Your task to perform on an android device: Clear the cart on target.com. Search for panasonic triple a on target.com, select the first entry, add it to the cart, then select checkout. Image 0: 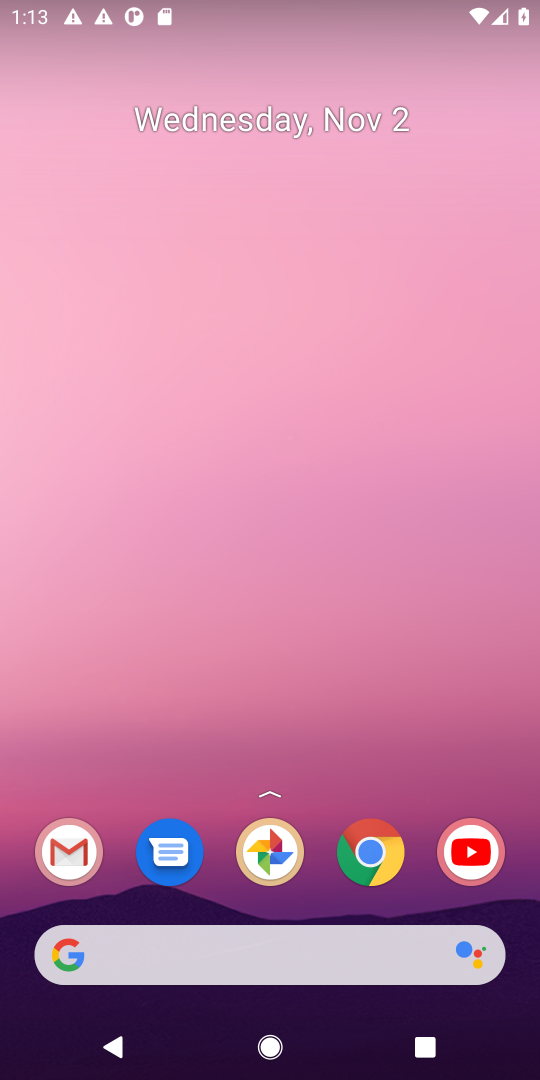
Step 0: press home button
Your task to perform on an android device: Clear the cart on target.com. Search for panasonic triple a on target.com, select the first entry, add it to the cart, then select checkout. Image 1: 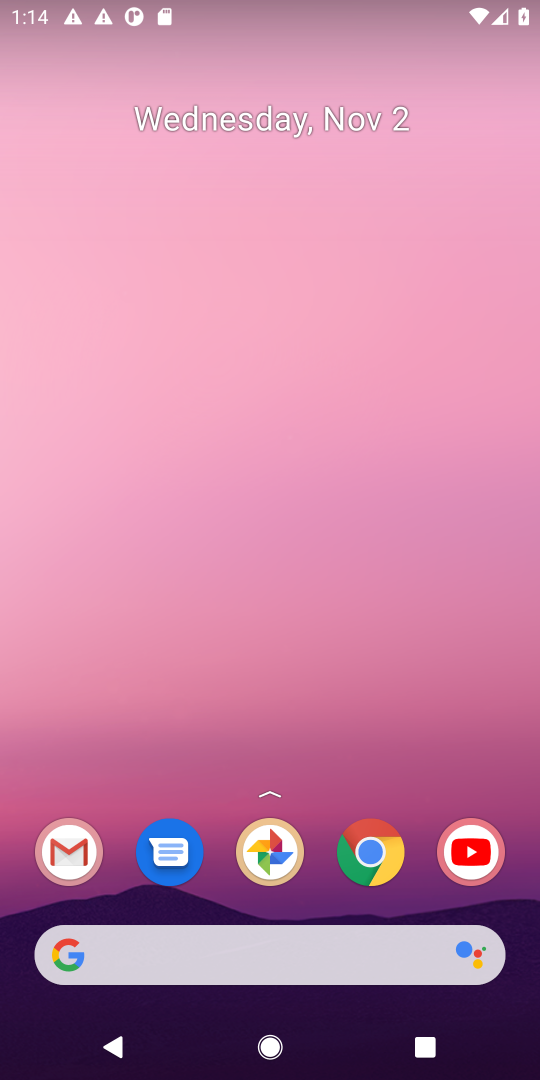
Step 1: click (65, 957)
Your task to perform on an android device: Clear the cart on target.com. Search for panasonic triple a on target.com, select the first entry, add it to the cart, then select checkout. Image 2: 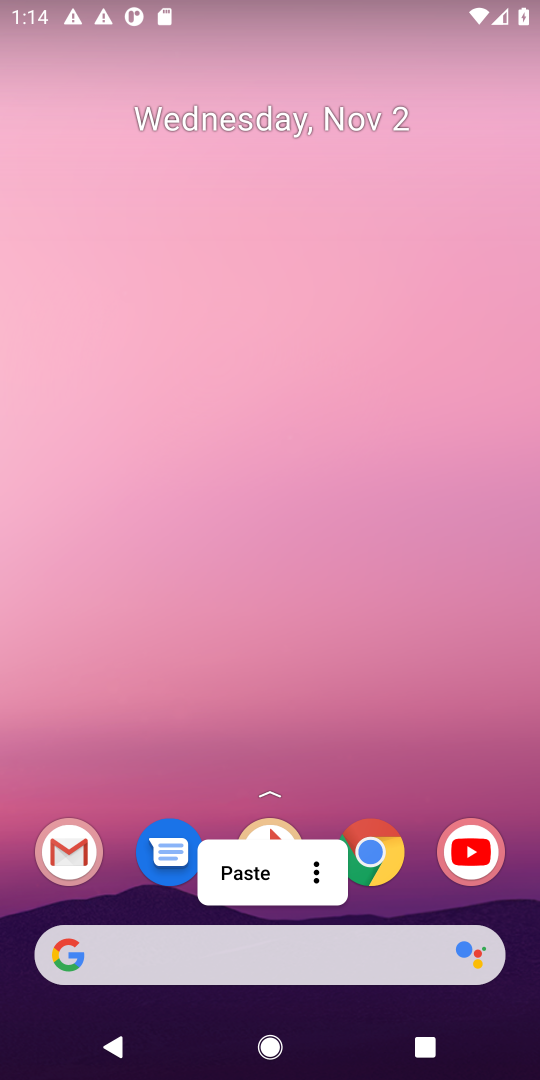
Step 2: click (60, 960)
Your task to perform on an android device: Clear the cart on target.com. Search for panasonic triple a on target.com, select the first entry, add it to the cart, then select checkout. Image 3: 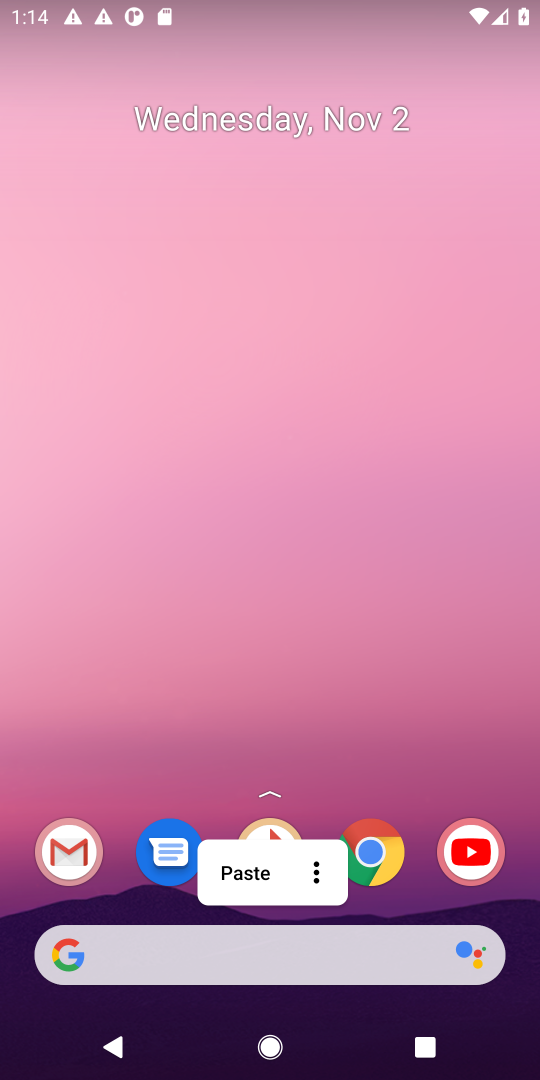
Step 3: click (68, 952)
Your task to perform on an android device: Clear the cart on target.com. Search for panasonic triple a on target.com, select the first entry, add it to the cart, then select checkout. Image 4: 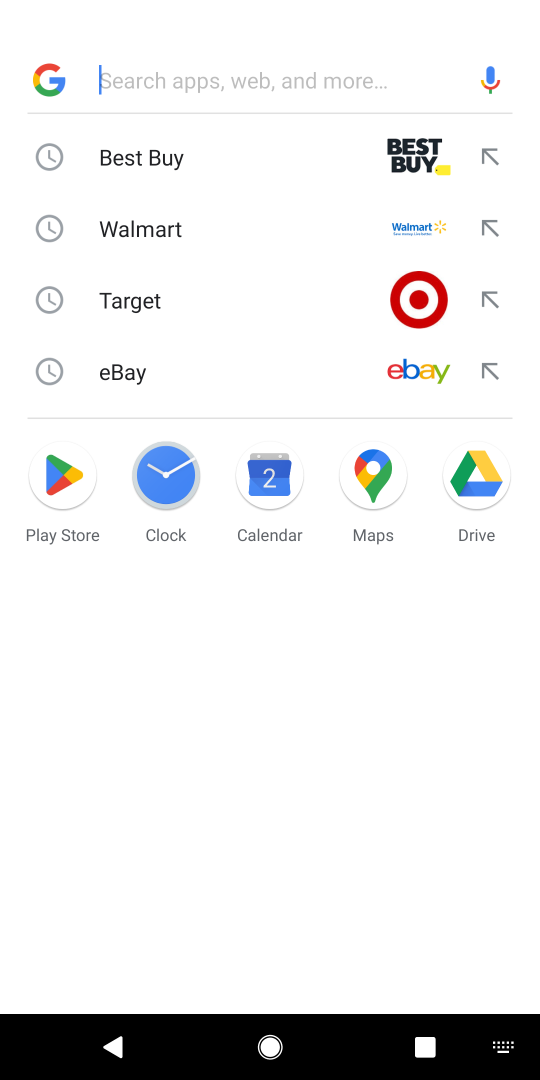
Step 4: click (139, 306)
Your task to perform on an android device: Clear the cart on target.com. Search for panasonic triple a on target.com, select the first entry, add it to the cart, then select checkout. Image 5: 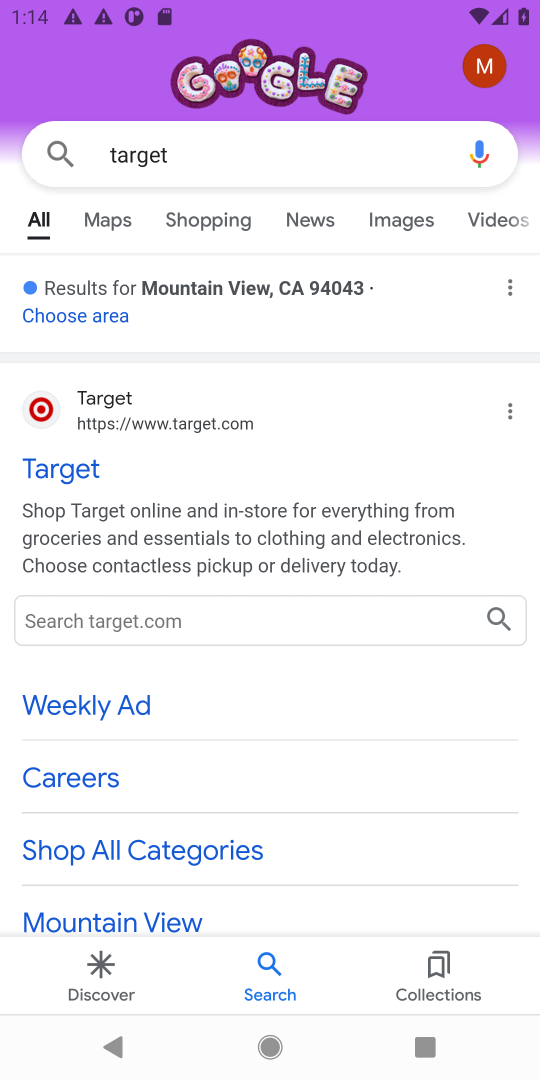
Step 5: click (72, 468)
Your task to perform on an android device: Clear the cart on target.com. Search for panasonic triple a on target.com, select the first entry, add it to the cart, then select checkout. Image 6: 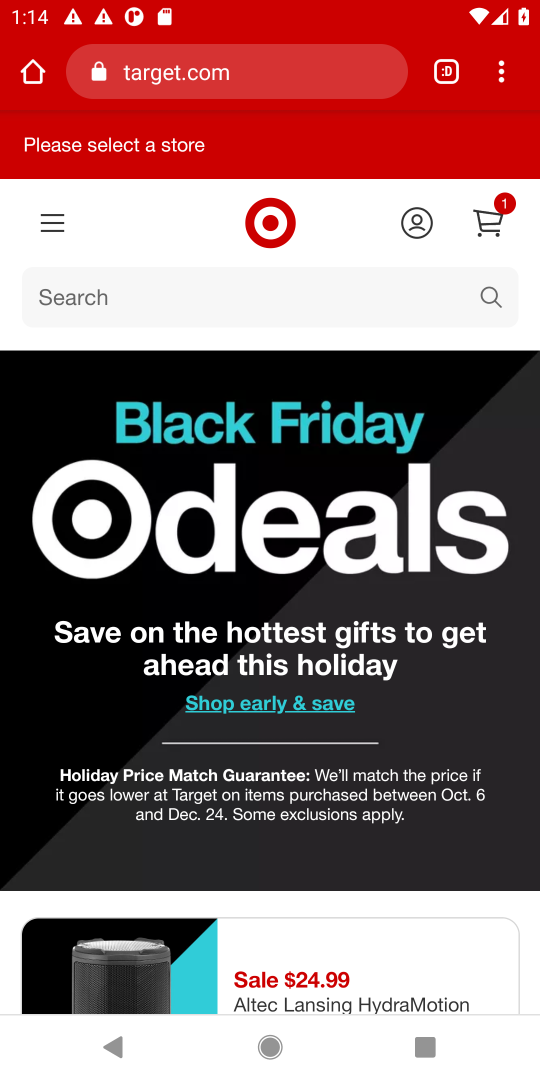
Step 6: click (493, 222)
Your task to perform on an android device: Clear the cart on target.com. Search for panasonic triple a on target.com, select the first entry, add it to the cart, then select checkout. Image 7: 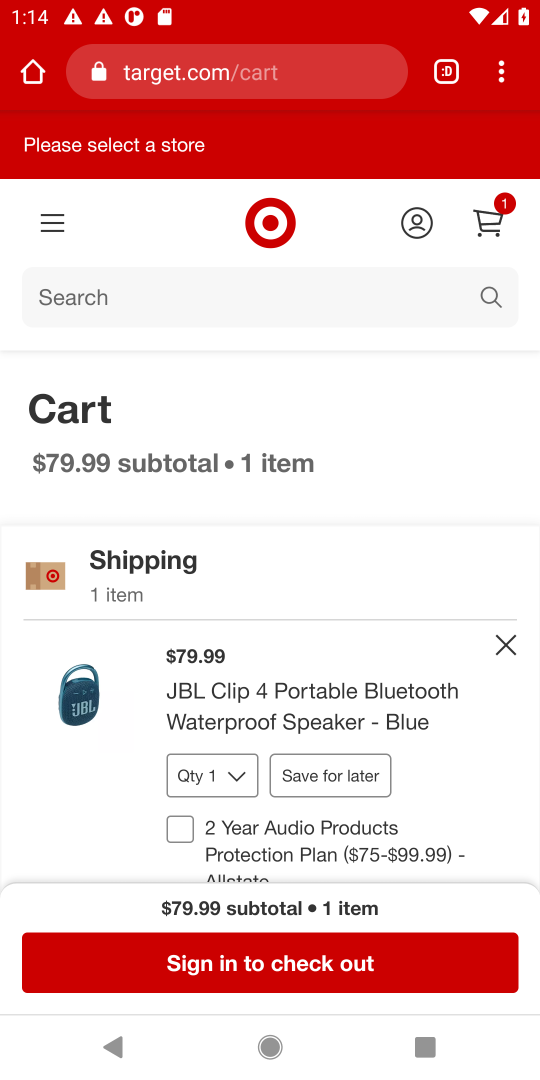
Step 7: click (501, 646)
Your task to perform on an android device: Clear the cart on target.com. Search for panasonic triple a on target.com, select the first entry, add it to the cart, then select checkout. Image 8: 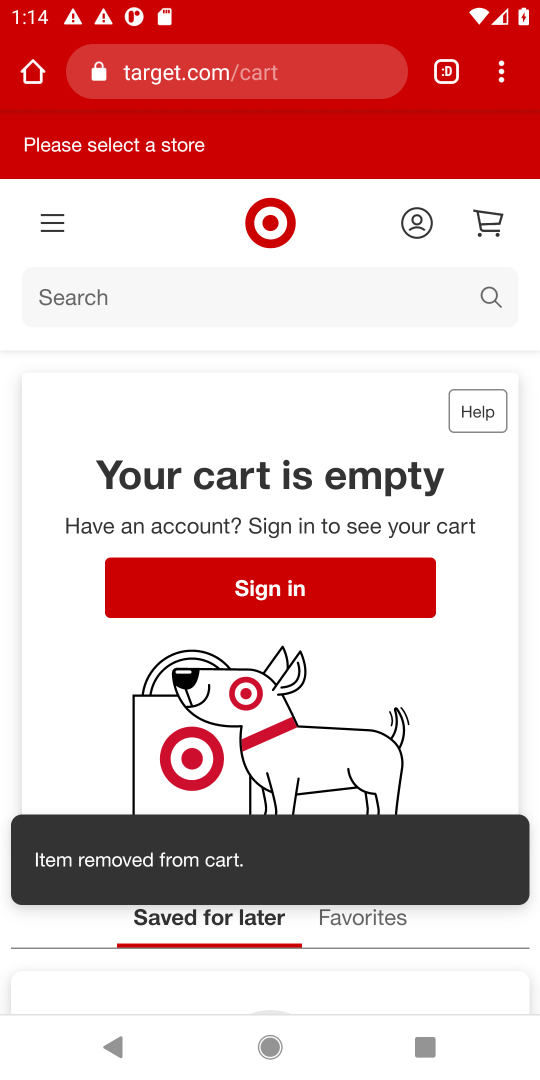
Step 8: click (228, 290)
Your task to perform on an android device: Clear the cart on target.com. Search for panasonic triple a on target.com, select the first entry, add it to the cart, then select checkout. Image 9: 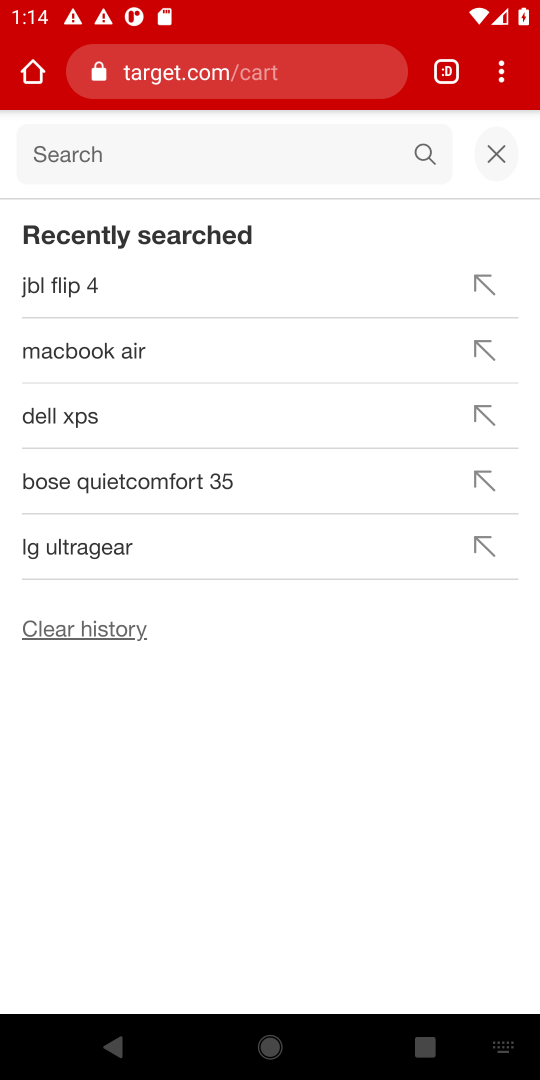
Step 9: type "panasonic triple a"
Your task to perform on an android device: Clear the cart on target.com. Search for panasonic triple a on target.com, select the first entry, add it to the cart, then select checkout. Image 10: 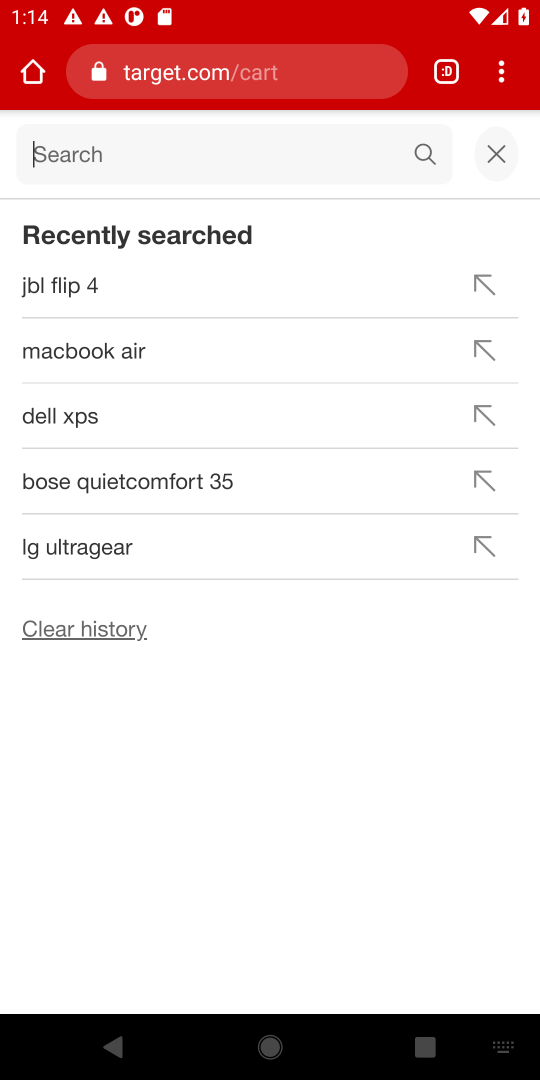
Step 10: click (99, 152)
Your task to perform on an android device: Clear the cart on target.com. Search for panasonic triple a on target.com, select the first entry, add it to the cart, then select checkout. Image 11: 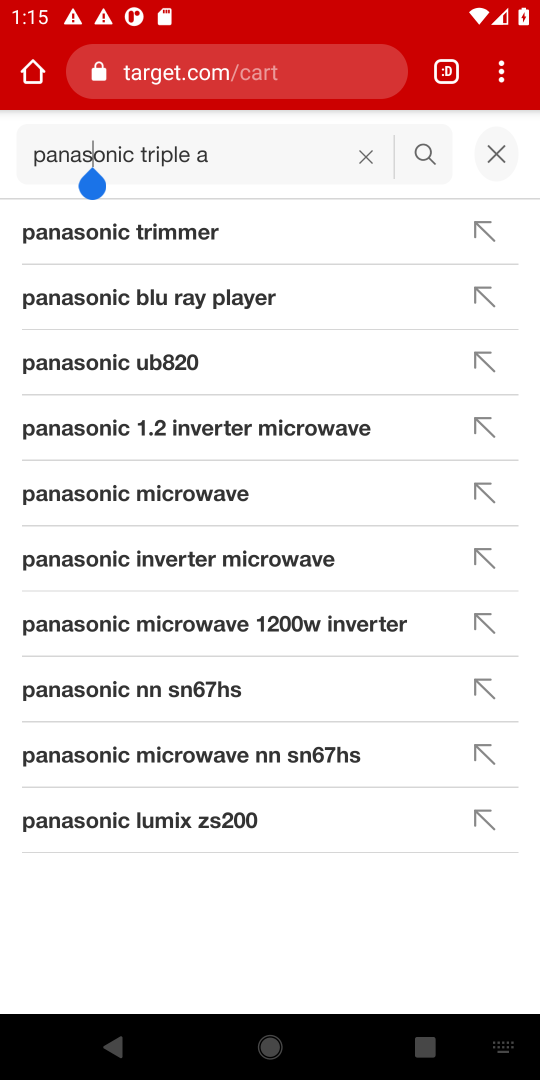
Step 11: press enter
Your task to perform on an android device: Clear the cart on target.com. Search for panasonic triple a on target.com, select the first entry, add it to the cart, then select checkout. Image 12: 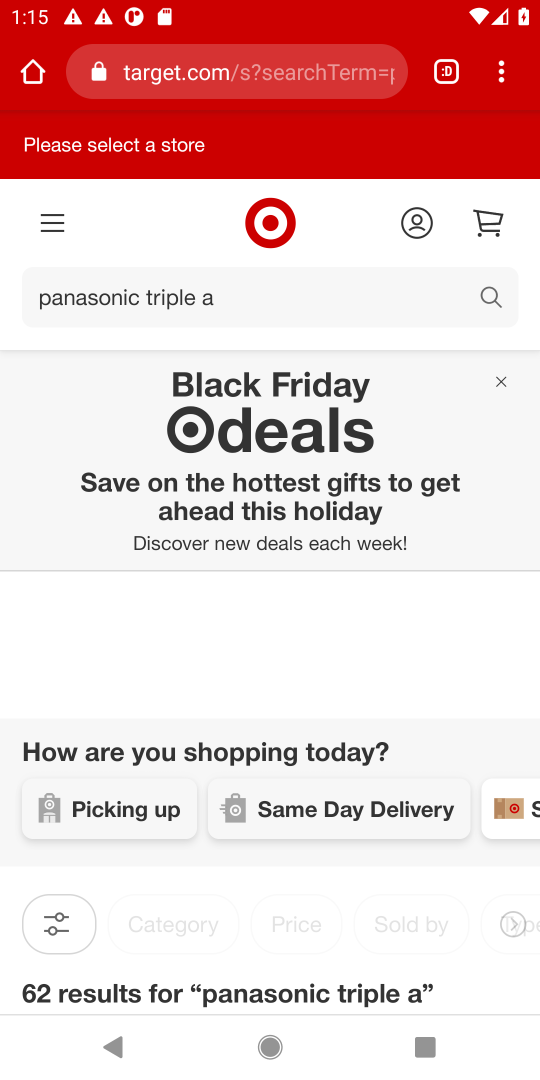
Step 12: task complete